Your task to perform on an android device: What's the weather? Image 0: 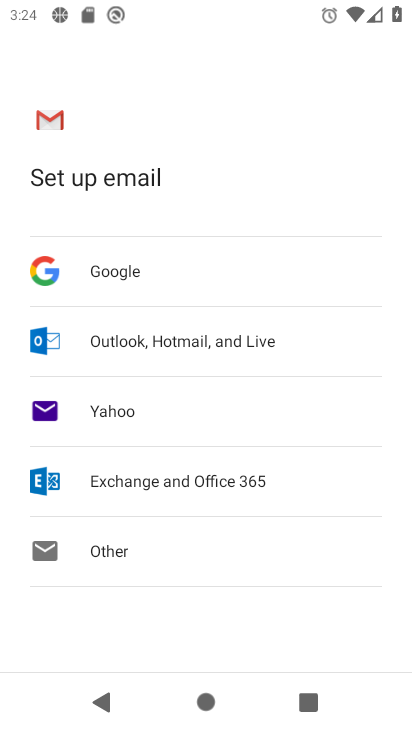
Step 0: press back button
Your task to perform on an android device: What's the weather? Image 1: 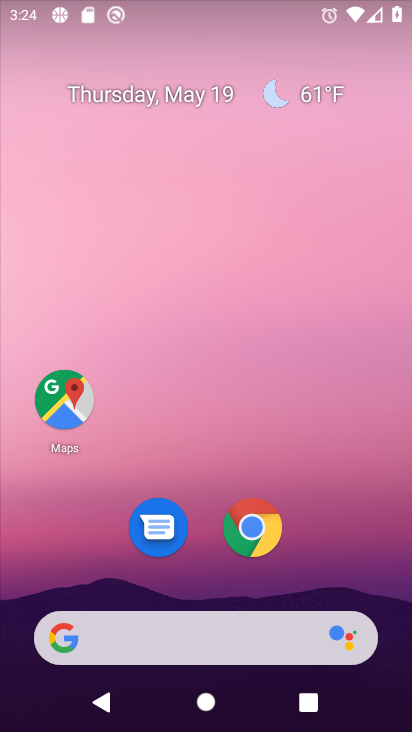
Step 1: click (313, 71)
Your task to perform on an android device: What's the weather? Image 2: 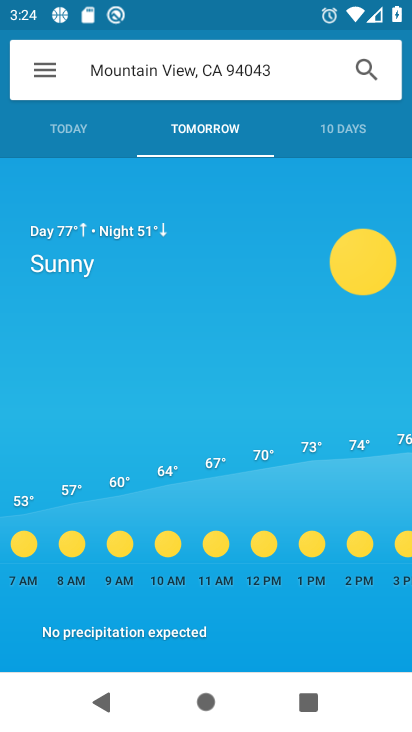
Step 2: task complete